Your task to perform on an android device: Show me popular videos on Youtube Image 0: 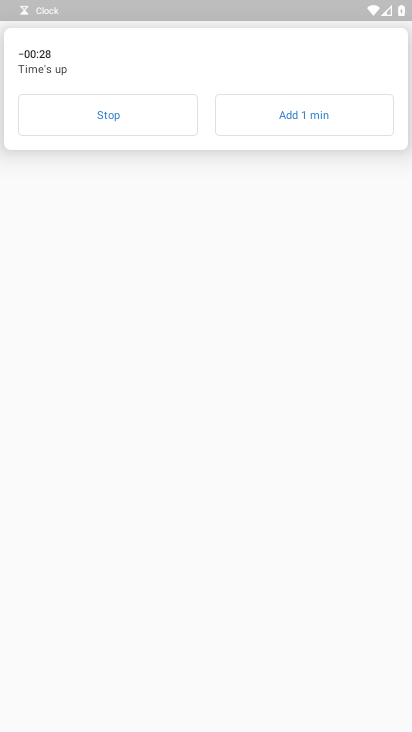
Step 0: press home button
Your task to perform on an android device: Show me popular videos on Youtube Image 1: 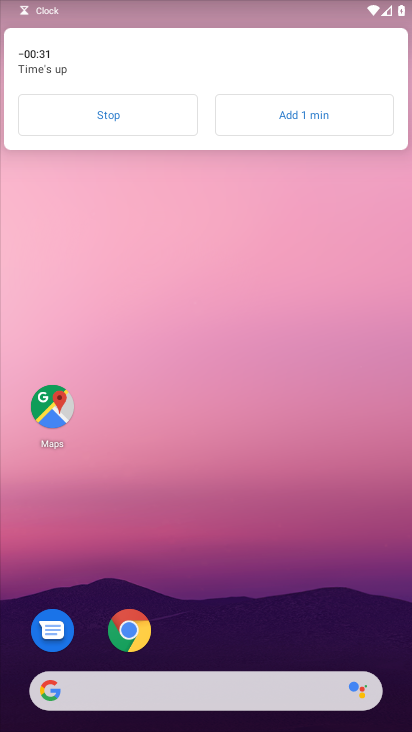
Step 1: drag from (236, 224) to (244, 55)
Your task to perform on an android device: Show me popular videos on Youtube Image 2: 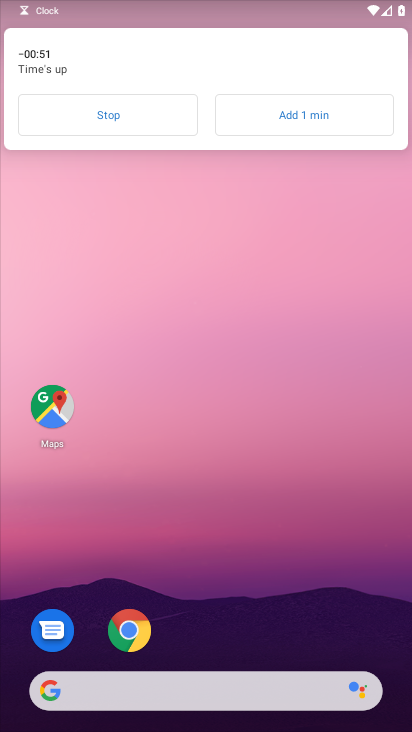
Step 2: drag from (218, 632) to (281, 9)
Your task to perform on an android device: Show me popular videos on Youtube Image 3: 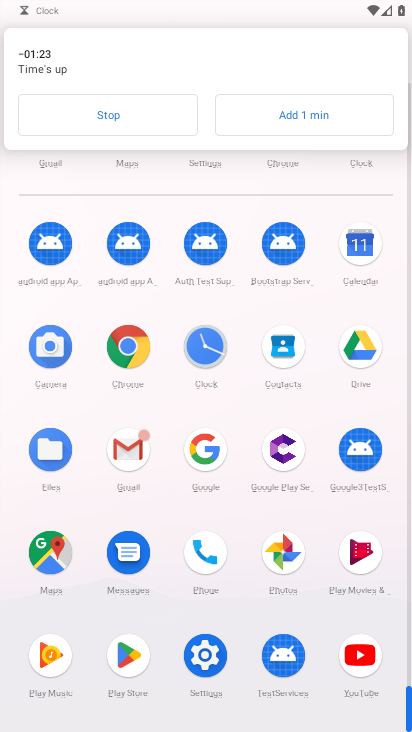
Step 3: click (337, 683)
Your task to perform on an android device: Show me popular videos on Youtube Image 4: 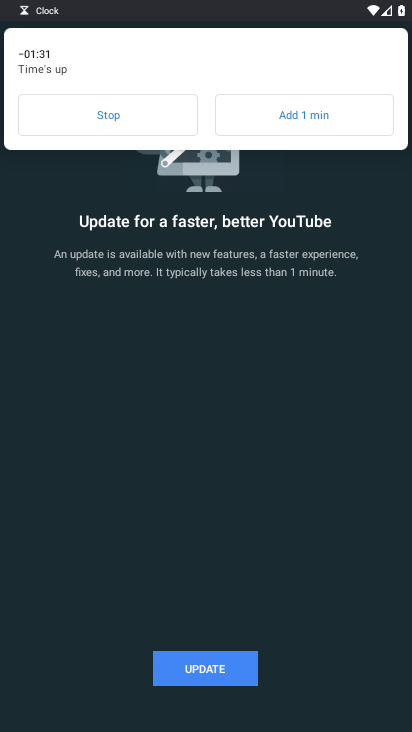
Step 4: click (221, 664)
Your task to perform on an android device: Show me popular videos on Youtube Image 5: 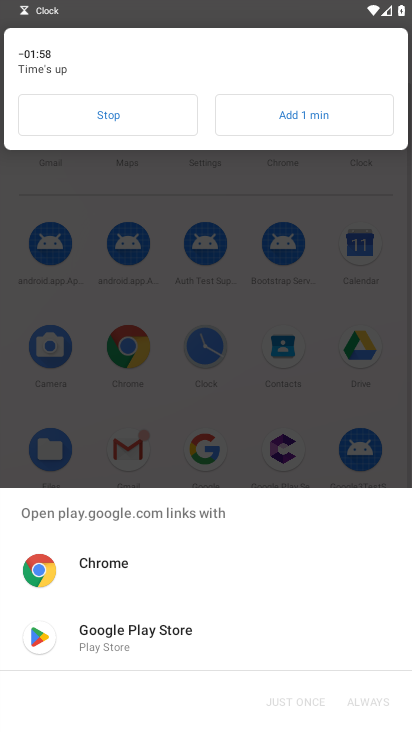
Step 5: click (131, 651)
Your task to perform on an android device: Show me popular videos on Youtube Image 6: 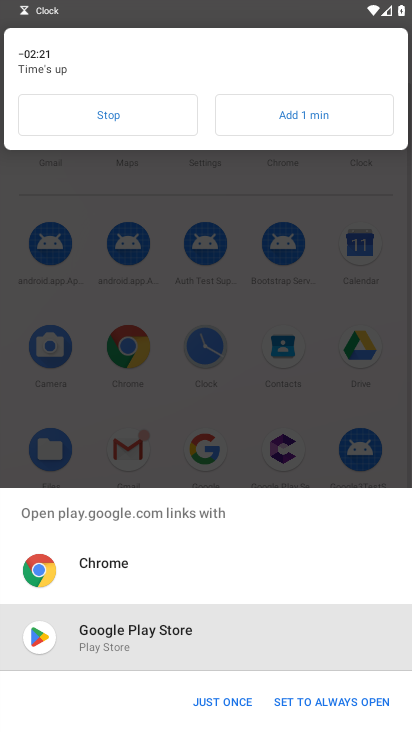
Step 6: click (228, 709)
Your task to perform on an android device: Show me popular videos on Youtube Image 7: 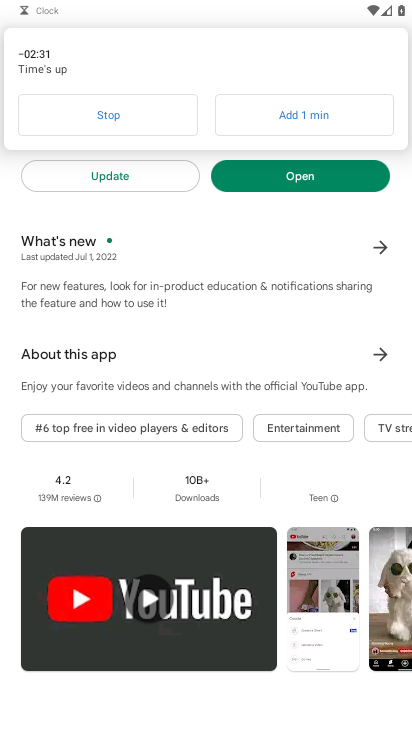
Step 7: click (140, 108)
Your task to perform on an android device: Show me popular videos on Youtube Image 8: 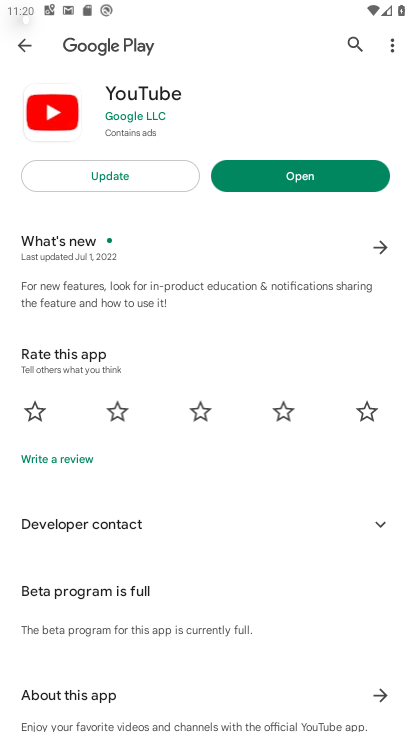
Step 8: click (123, 181)
Your task to perform on an android device: Show me popular videos on Youtube Image 9: 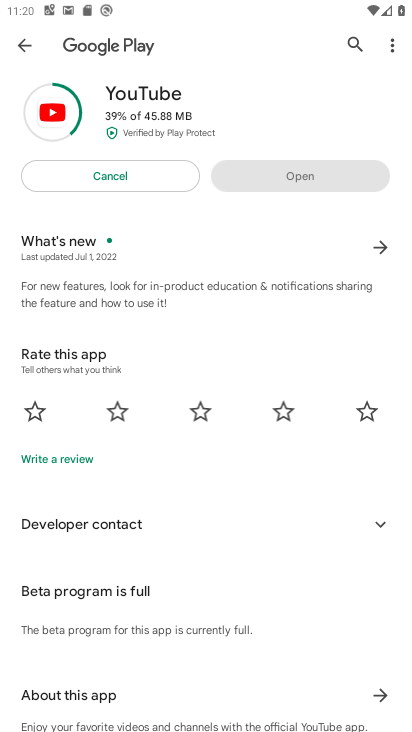
Step 9: task complete